Your task to perform on an android device: Go to Yahoo.com Image 0: 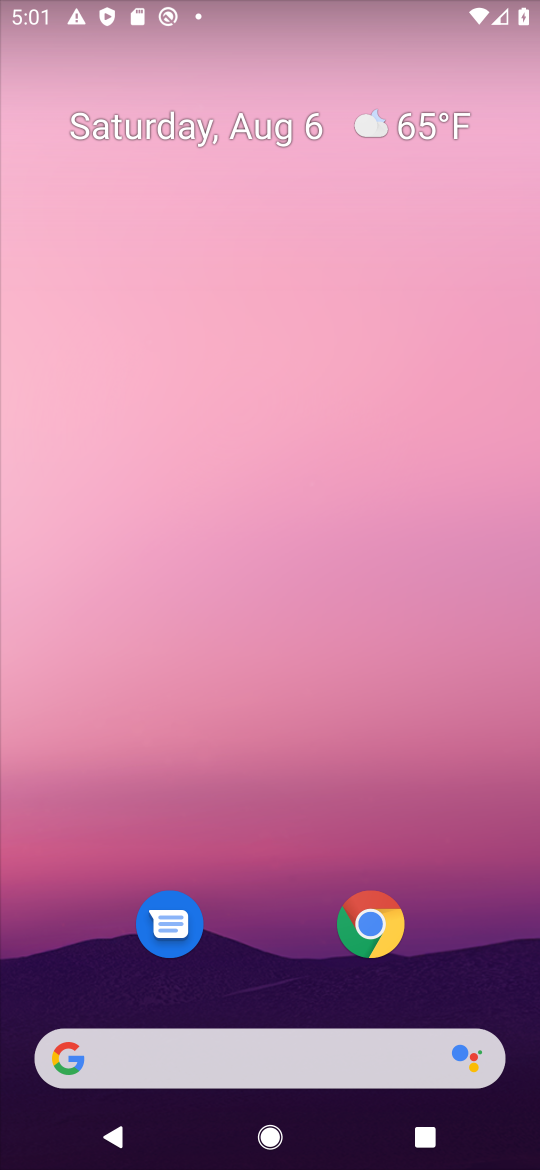
Step 0: click (166, 1038)
Your task to perform on an android device: Go to Yahoo.com Image 1: 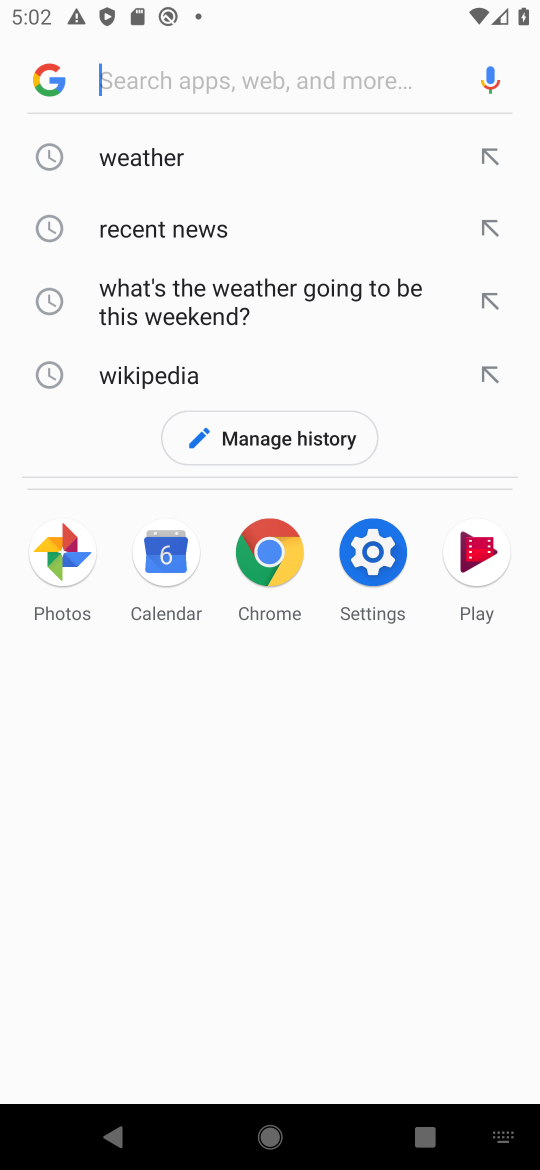
Step 1: press enter
Your task to perform on an android device: Go to Yahoo.com Image 2: 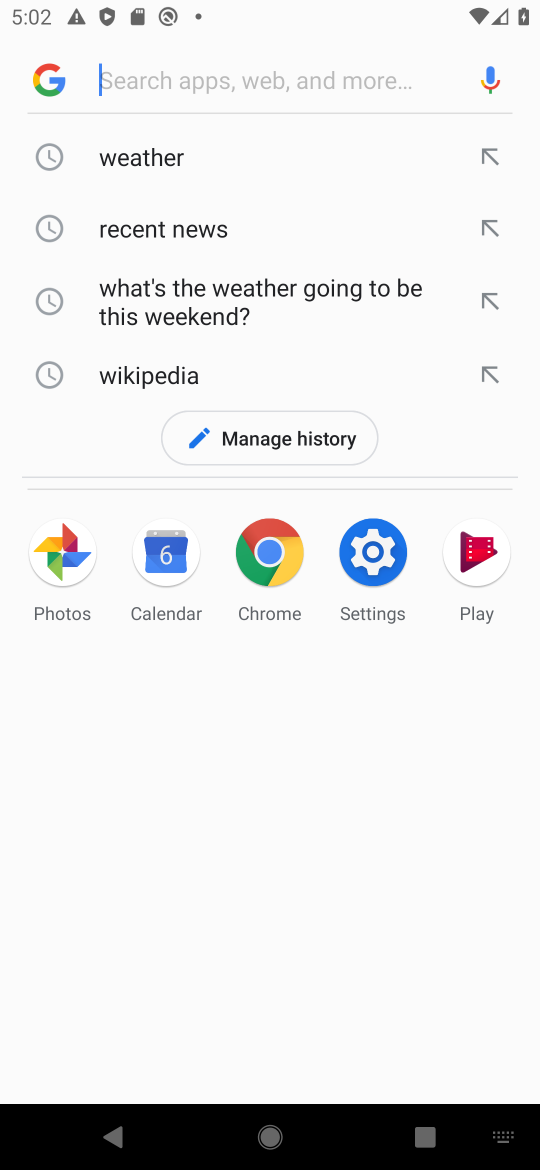
Step 2: type "yahoo.com"
Your task to perform on an android device: Go to Yahoo.com Image 3: 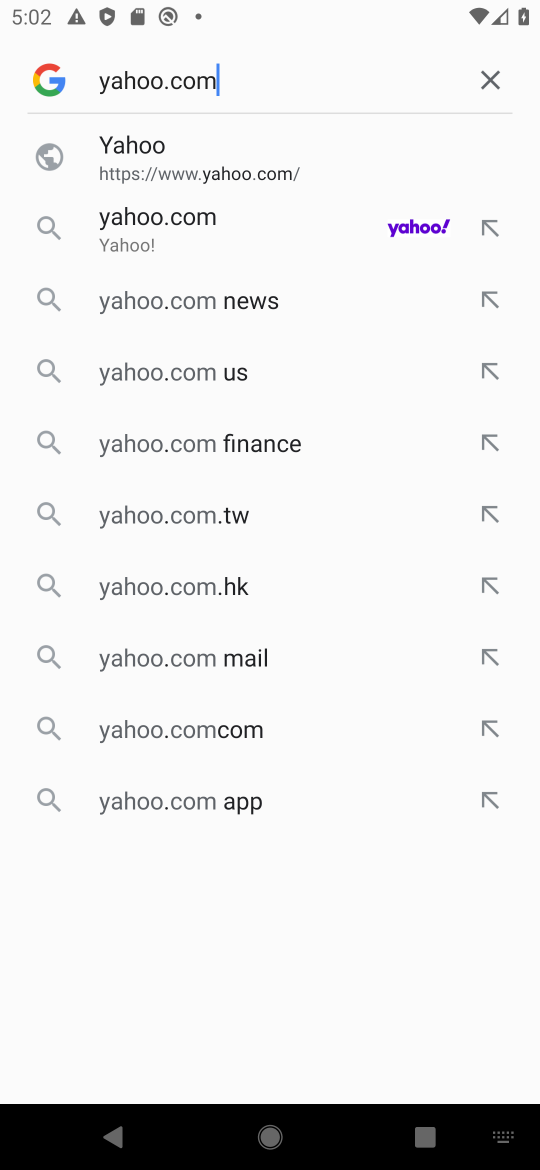
Step 3: click (340, 140)
Your task to perform on an android device: Go to Yahoo.com Image 4: 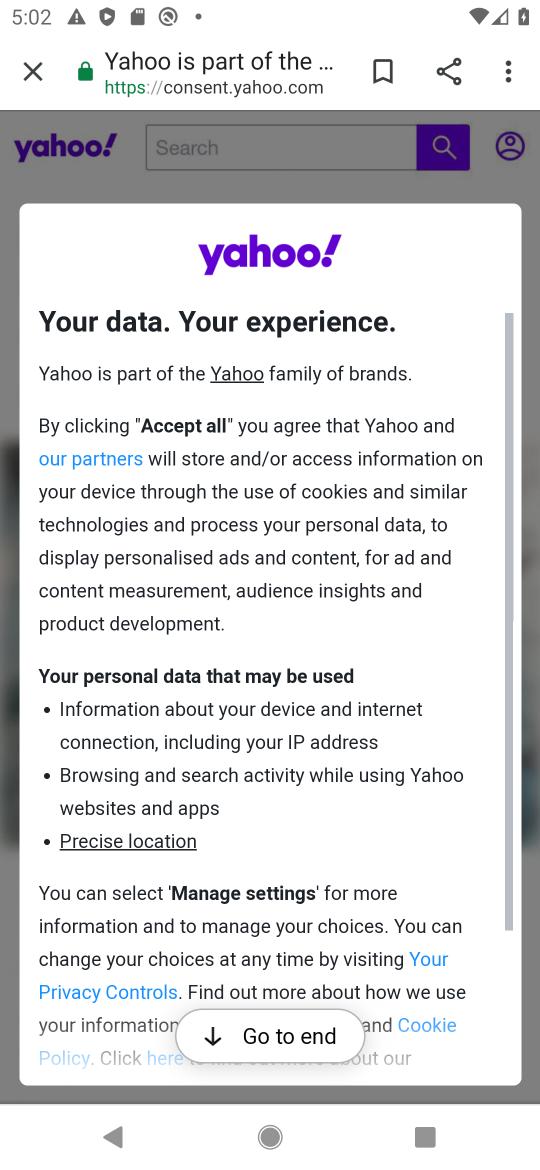
Step 4: task complete